Your task to perform on an android device: Open ESPN.com Image 0: 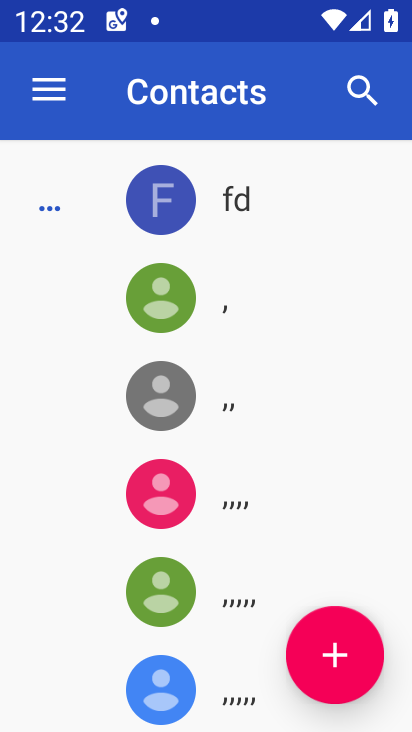
Step 0: press home button
Your task to perform on an android device: Open ESPN.com Image 1: 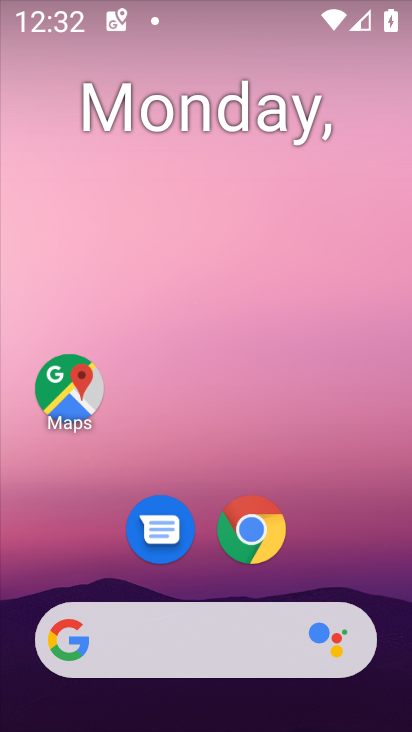
Step 1: click (253, 544)
Your task to perform on an android device: Open ESPN.com Image 2: 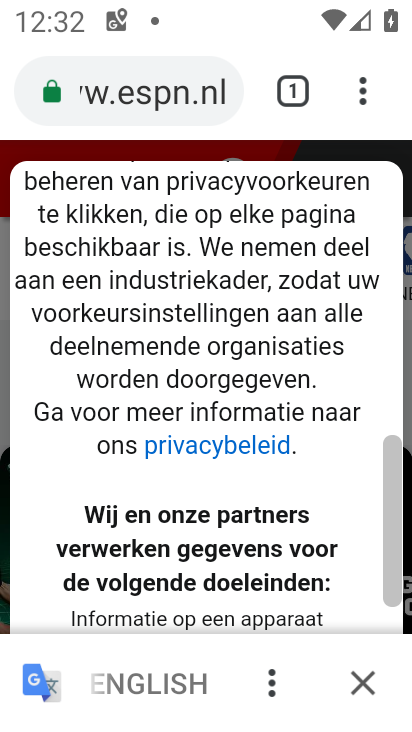
Step 2: task complete